Your task to perform on an android device: Show the shopping cart on bestbuy.com. Add razer kraken to the cart on bestbuy.com Image 0: 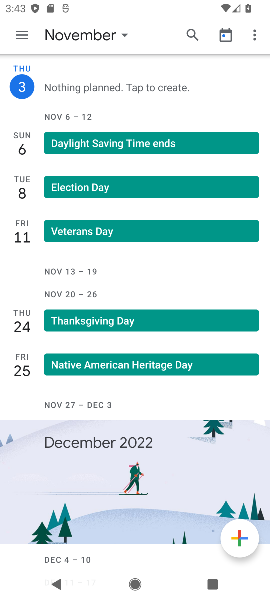
Step 0: press home button
Your task to perform on an android device: Show the shopping cart on bestbuy.com. Add razer kraken to the cart on bestbuy.com Image 1: 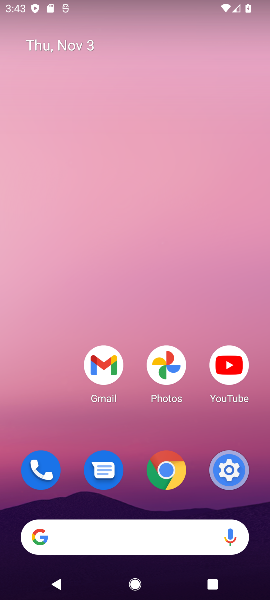
Step 1: click (166, 474)
Your task to perform on an android device: Show the shopping cart on bestbuy.com. Add razer kraken to the cart on bestbuy.com Image 2: 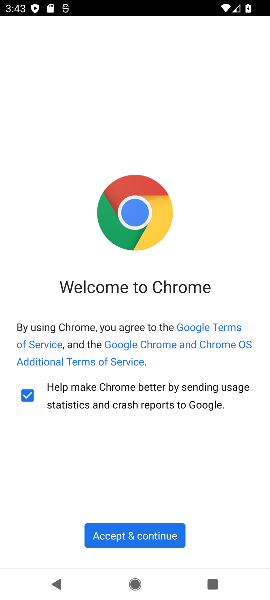
Step 2: click (141, 530)
Your task to perform on an android device: Show the shopping cart on bestbuy.com. Add razer kraken to the cart on bestbuy.com Image 3: 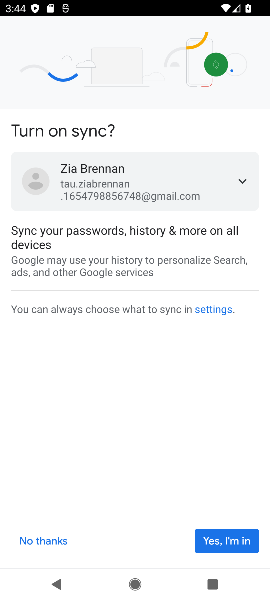
Step 3: click (227, 545)
Your task to perform on an android device: Show the shopping cart on bestbuy.com. Add razer kraken to the cart on bestbuy.com Image 4: 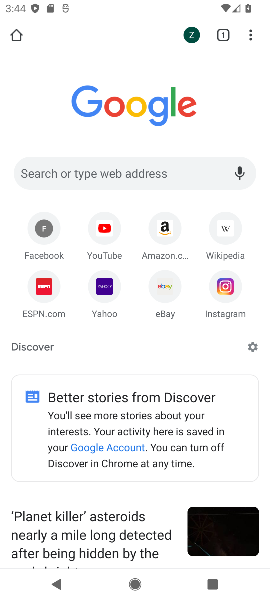
Step 4: click (115, 173)
Your task to perform on an android device: Show the shopping cart on bestbuy.com. Add razer kraken to the cart on bestbuy.com Image 5: 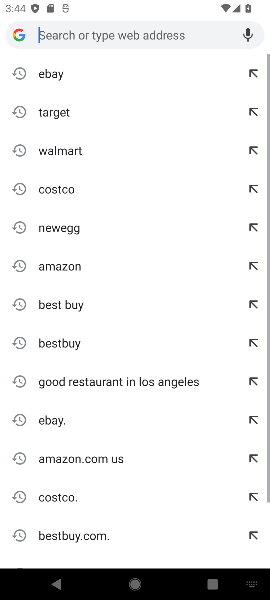
Step 5: type "bestbuy"
Your task to perform on an android device: Show the shopping cart on bestbuy.com. Add razer kraken to the cart on bestbuy.com Image 6: 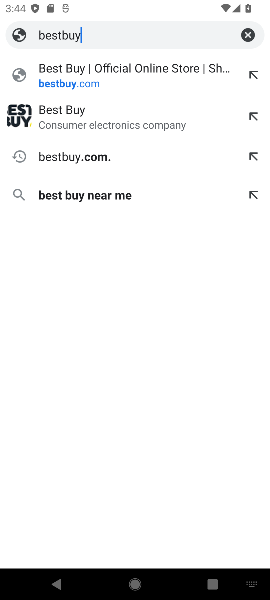
Step 6: click (92, 75)
Your task to perform on an android device: Show the shopping cart on bestbuy.com. Add razer kraken to the cart on bestbuy.com Image 7: 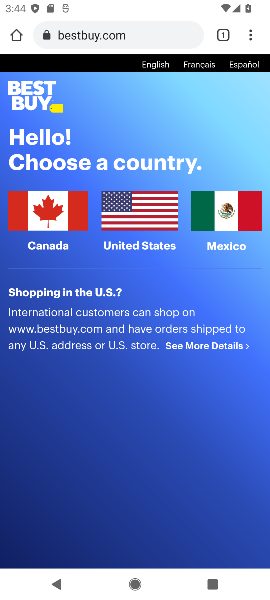
Step 7: click (136, 191)
Your task to perform on an android device: Show the shopping cart on bestbuy.com. Add razer kraken to the cart on bestbuy.com Image 8: 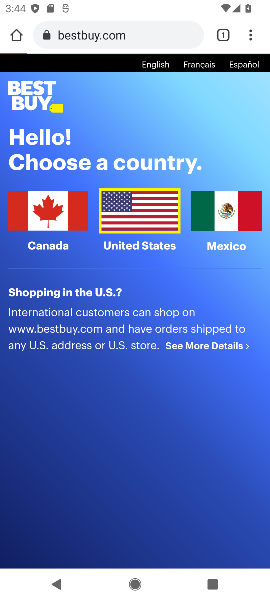
Step 8: click (144, 226)
Your task to perform on an android device: Show the shopping cart on bestbuy.com. Add razer kraken to the cart on bestbuy.com Image 9: 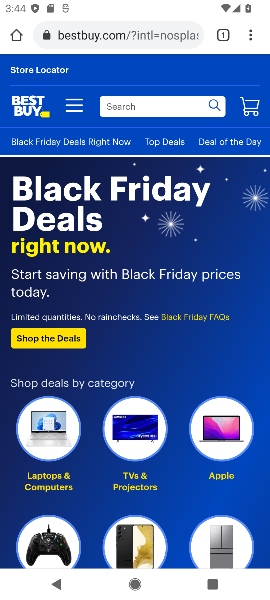
Step 9: click (143, 108)
Your task to perform on an android device: Show the shopping cart on bestbuy.com. Add razer kraken to the cart on bestbuy.com Image 10: 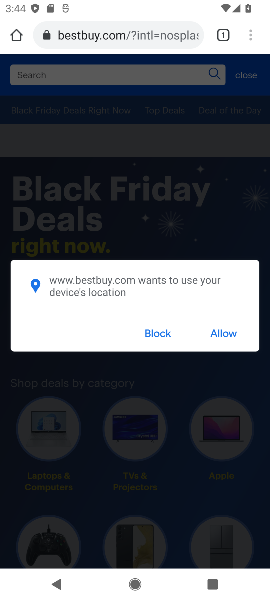
Step 10: type "razer kraken"
Your task to perform on an android device: Show the shopping cart on bestbuy.com. Add razer kraken to the cart on bestbuy.com Image 11: 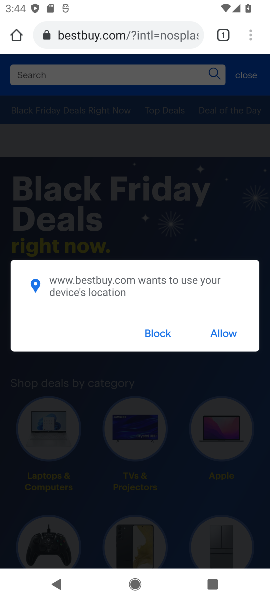
Step 11: click (166, 335)
Your task to perform on an android device: Show the shopping cart on bestbuy.com. Add razer kraken to the cart on bestbuy.com Image 12: 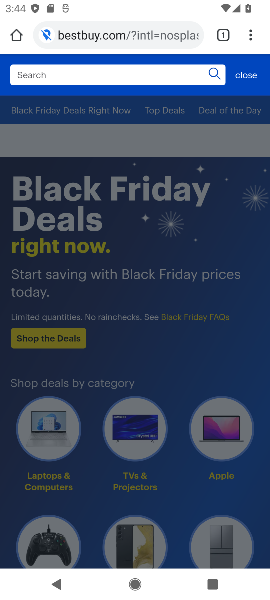
Step 12: click (165, 76)
Your task to perform on an android device: Show the shopping cart on bestbuy.com. Add razer kraken to the cart on bestbuy.com Image 13: 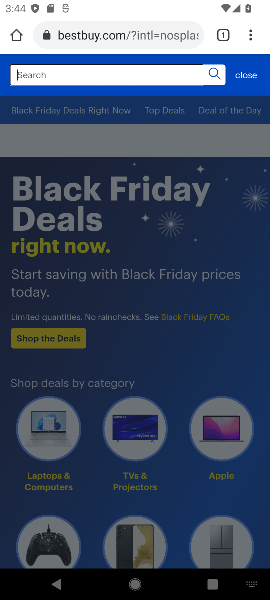
Step 13: type "razer kraken"
Your task to perform on an android device: Show the shopping cart on bestbuy.com. Add razer kraken to the cart on bestbuy.com Image 14: 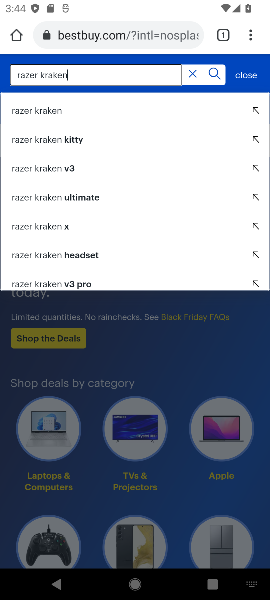
Step 14: click (46, 110)
Your task to perform on an android device: Show the shopping cart on bestbuy.com. Add razer kraken to the cart on bestbuy.com Image 15: 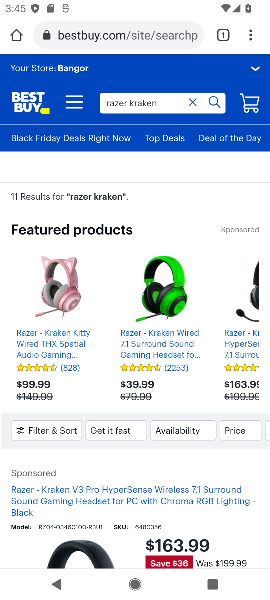
Step 15: drag from (109, 520) to (202, 237)
Your task to perform on an android device: Show the shopping cart on bestbuy.com. Add razer kraken to the cart on bestbuy.com Image 16: 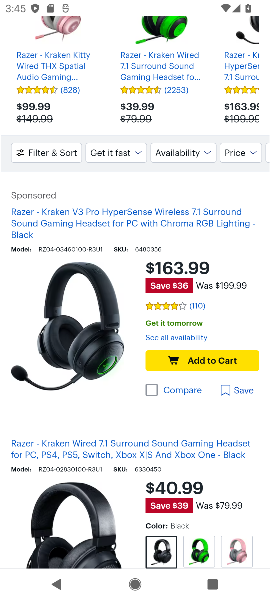
Step 16: click (207, 358)
Your task to perform on an android device: Show the shopping cart on bestbuy.com. Add razer kraken to the cart on bestbuy.com Image 17: 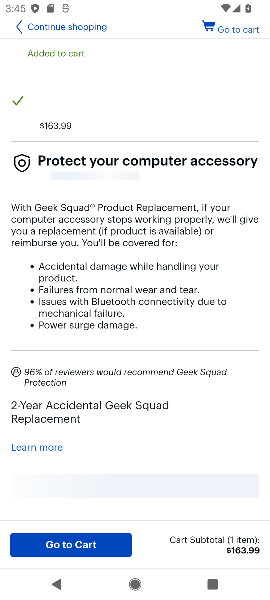
Step 17: task complete